Your task to perform on an android device: turn off javascript in the chrome app Image 0: 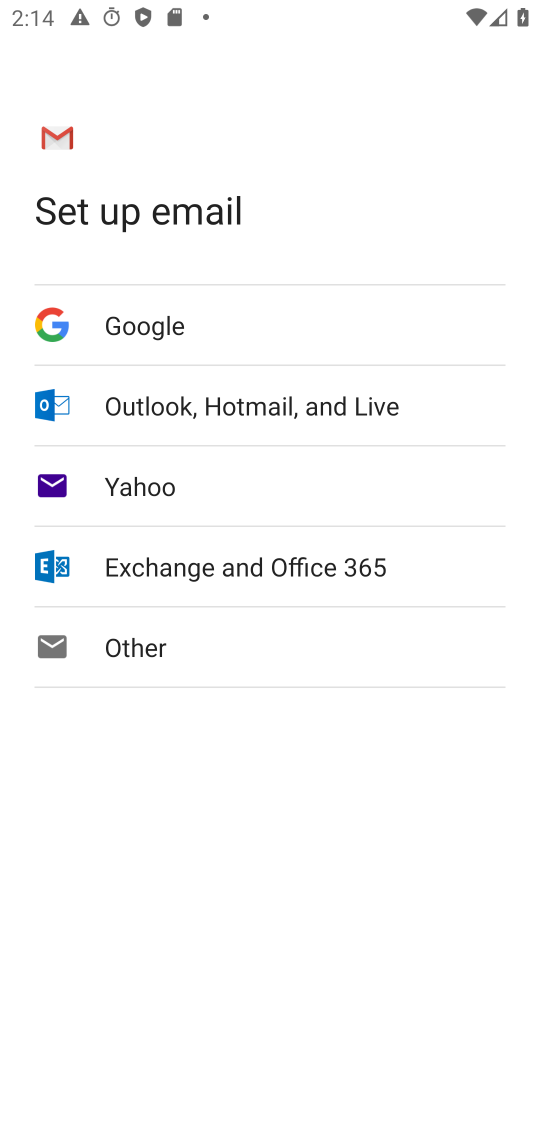
Step 0: press home button
Your task to perform on an android device: turn off javascript in the chrome app Image 1: 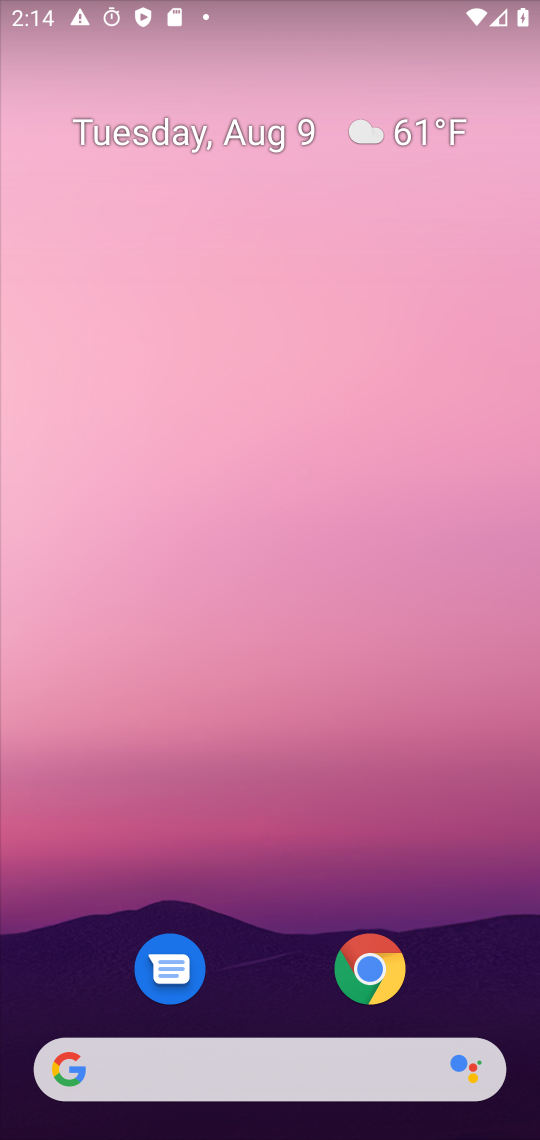
Step 1: drag from (320, 1114) to (204, 472)
Your task to perform on an android device: turn off javascript in the chrome app Image 2: 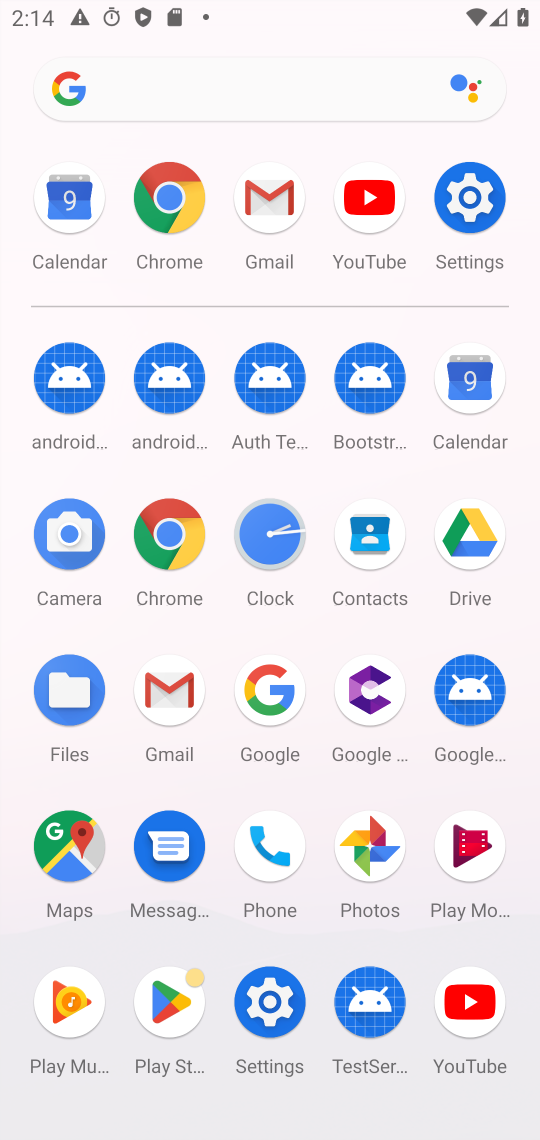
Step 2: click (165, 203)
Your task to perform on an android device: turn off javascript in the chrome app Image 3: 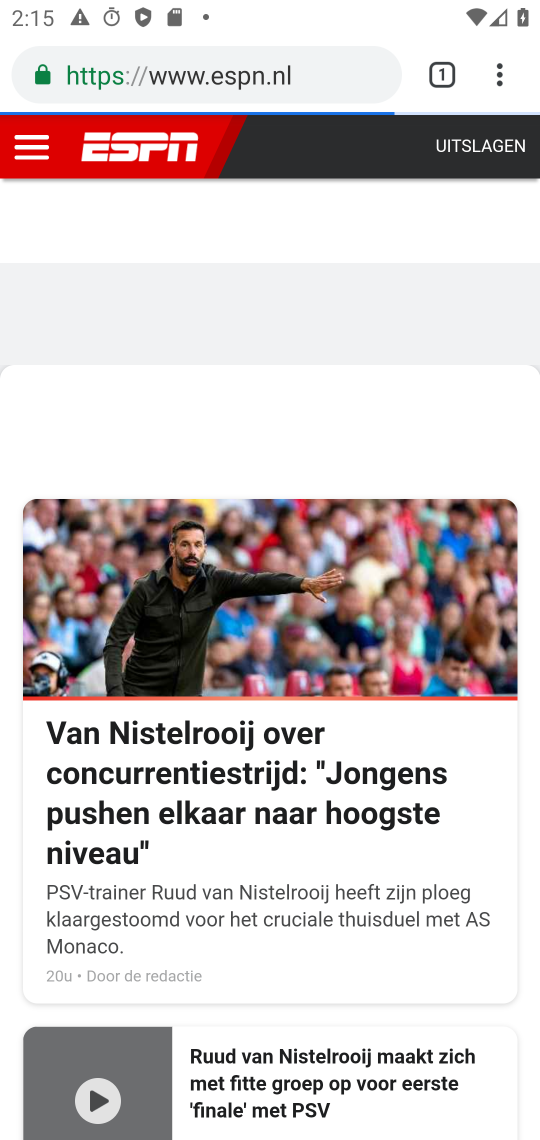
Step 3: click (505, 85)
Your task to perform on an android device: turn off javascript in the chrome app Image 4: 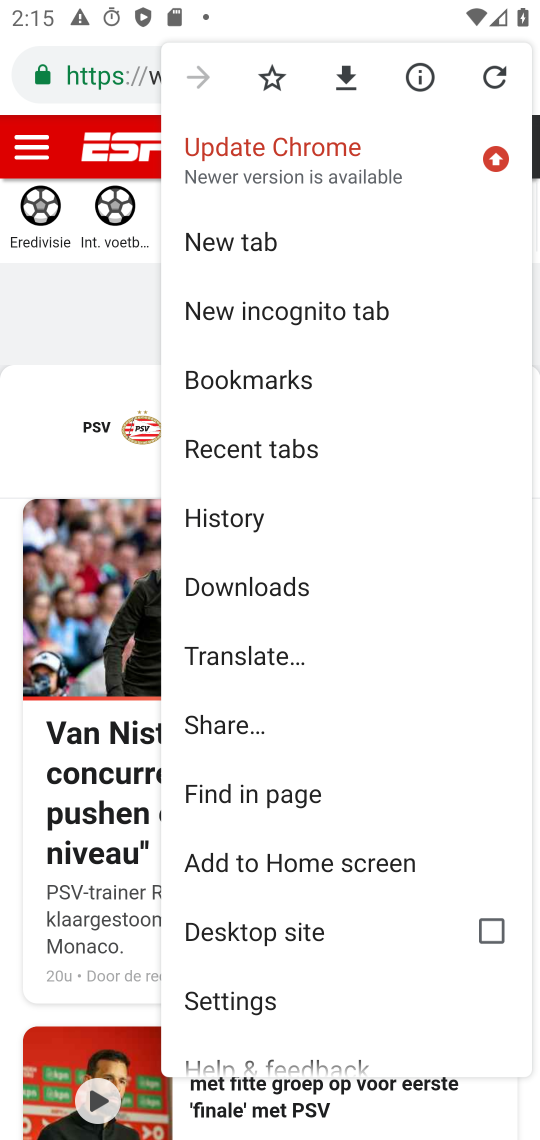
Step 4: click (235, 1001)
Your task to perform on an android device: turn off javascript in the chrome app Image 5: 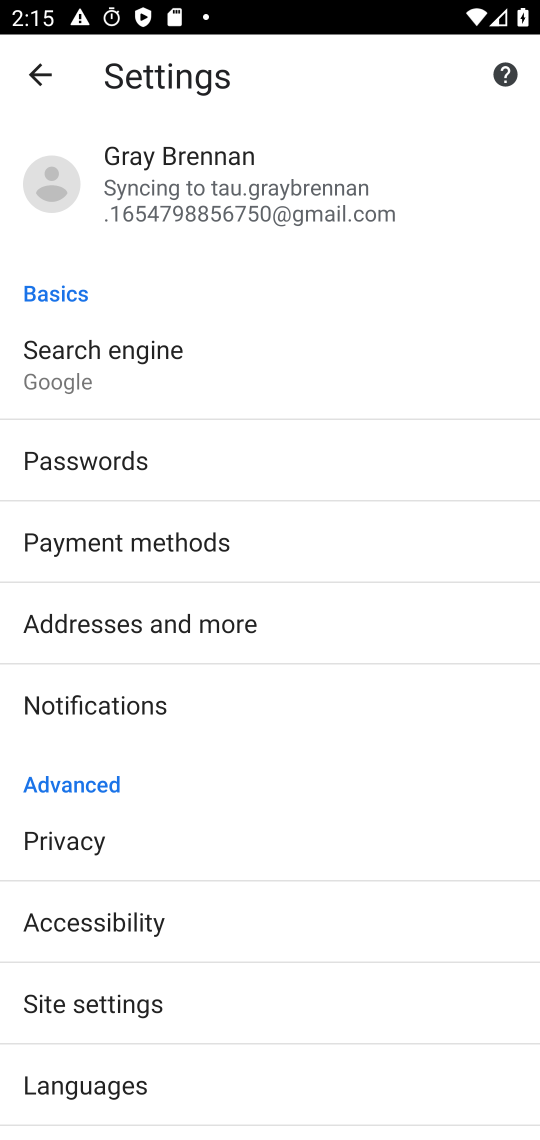
Step 5: click (102, 1014)
Your task to perform on an android device: turn off javascript in the chrome app Image 6: 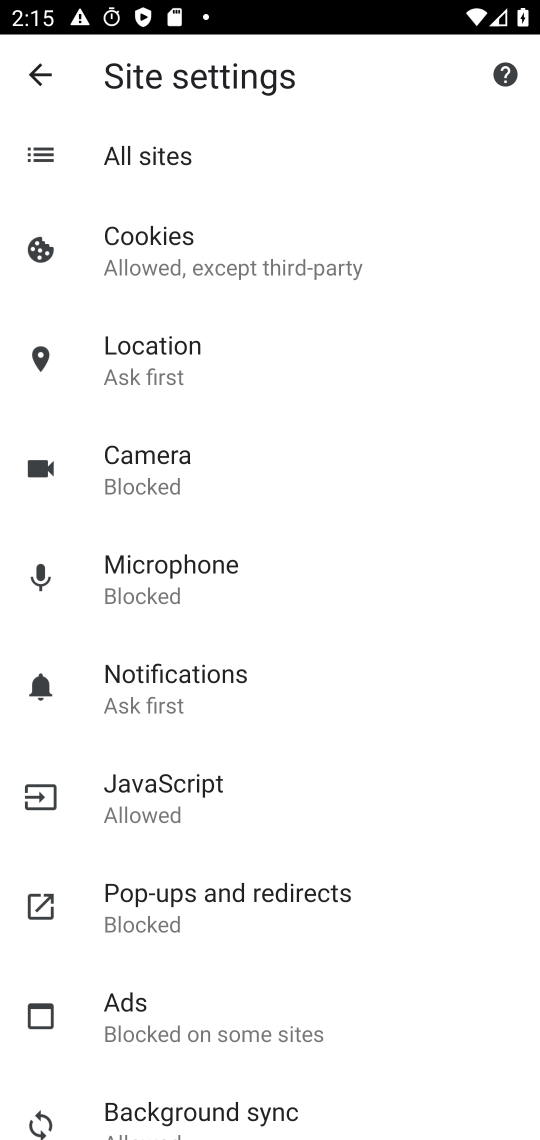
Step 6: click (166, 797)
Your task to perform on an android device: turn off javascript in the chrome app Image 7: 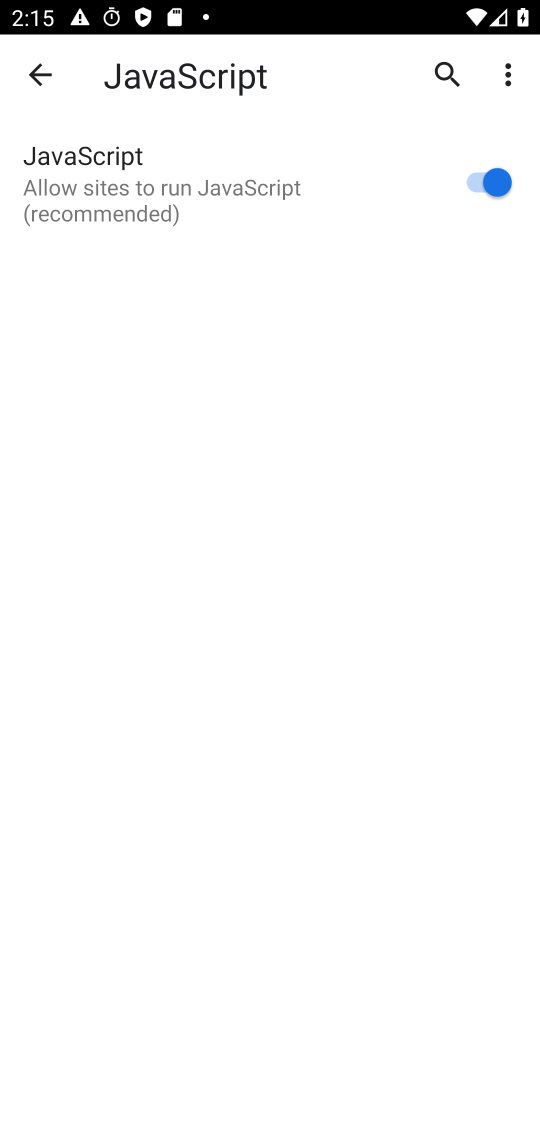
Step 7: click (471, 191)
Your task to perform on an android device: turn off javascript in the chrome app Image 8: 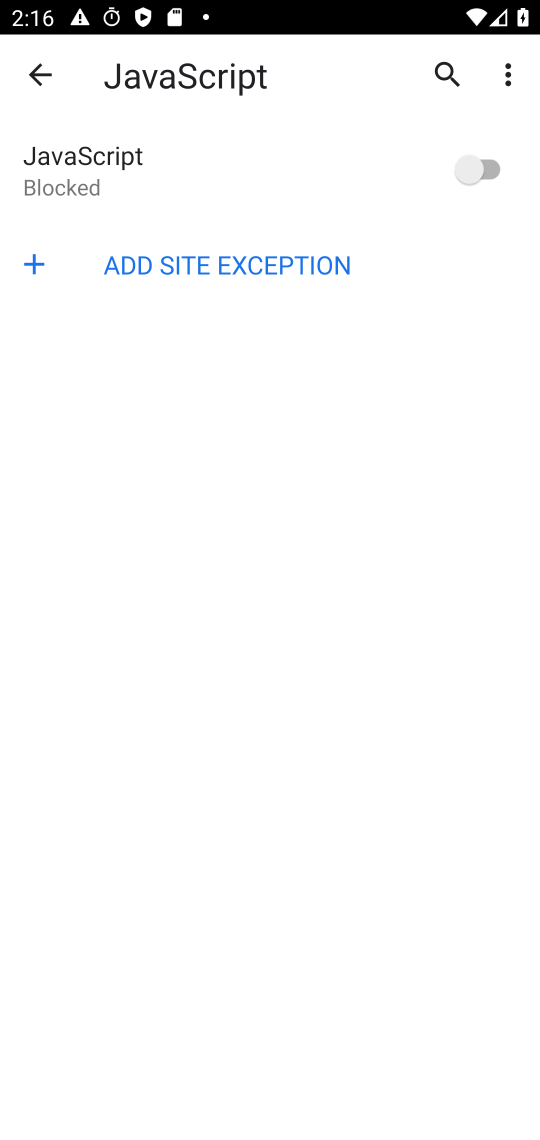
Step 8: task complete